Your task to perform on an android device: turn off notifications settings in the gmail app Image 0: 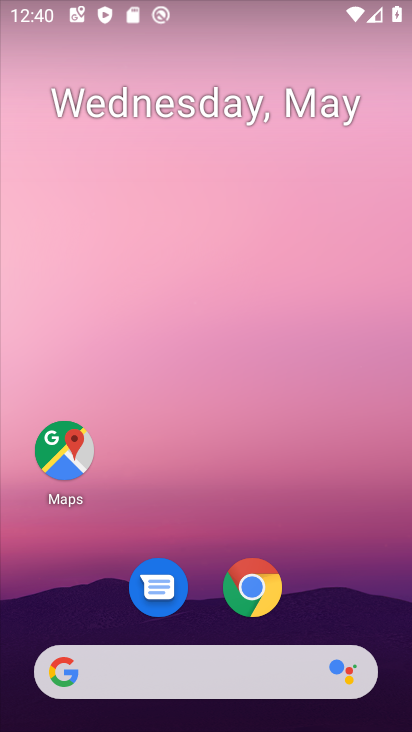
Step 0: drag from (367, 614) to (374, 160)
Your task to perform on an android device: turn off notifications settings in the gmail app Image 1: 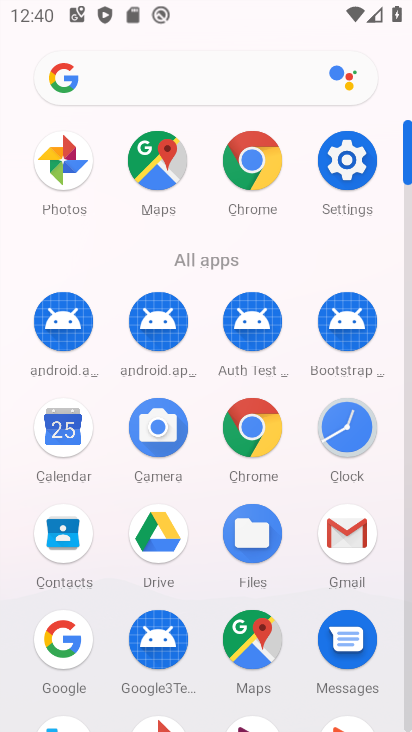
Step 1: click (368, 541)
Your task to perform on an android device: turn off notifications settings in the gmail app Image 2: 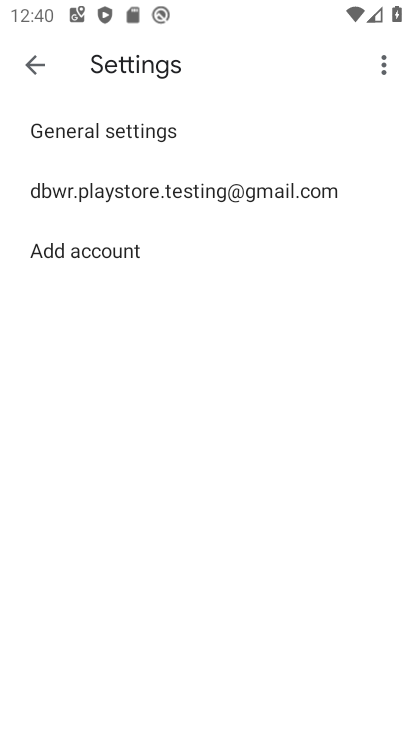
Step 2: click (261, 199)
Your task to perform on an android device: turn off notifications settings in the gmail app Image 3: 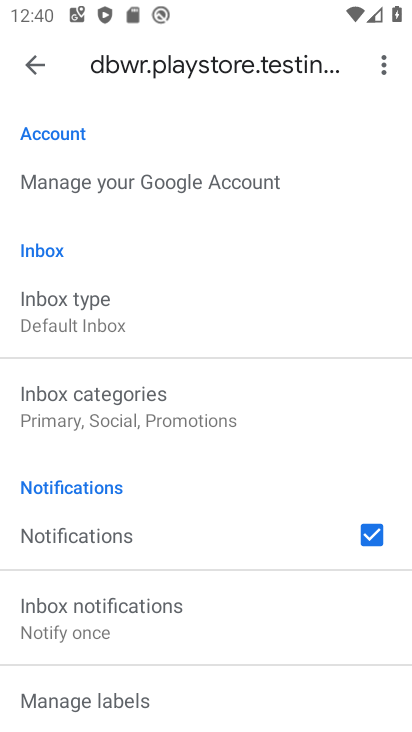
Step 3: drag from (273, 543) to (300, 399)
Your task to perform on an android device: turn off notifications settings in the gmail app Image 4: 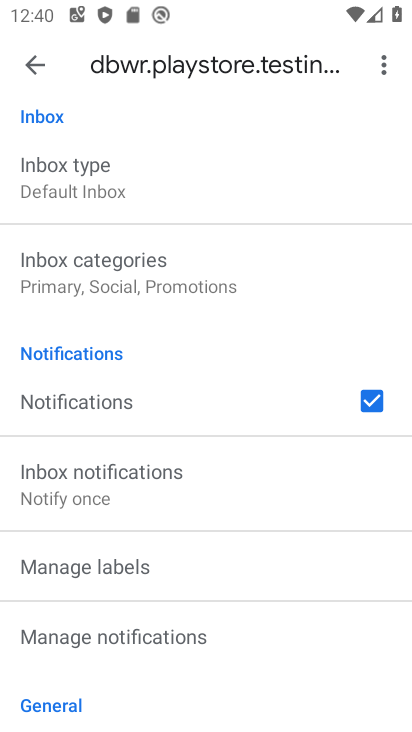
Step 4: drag from (255, 603) to (291, 459)
Your task to perform on an android device: turn off notifications settings in the gmail app Image 5: 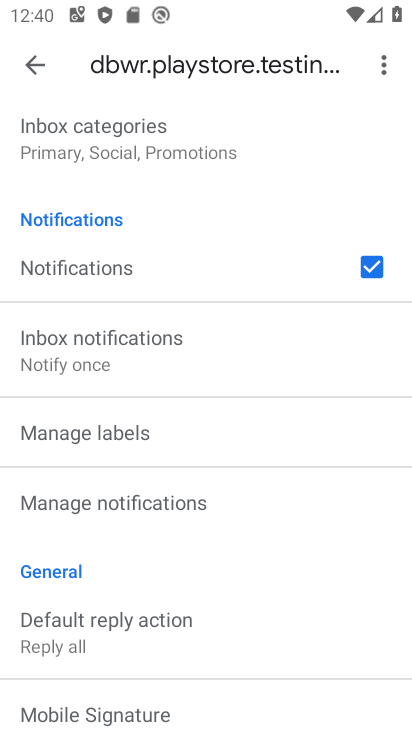
Step 5: drag from (298, 613) to (318, 453)
Your task to perform on an android device: turn off notifications settings in the gmail app Image 6: 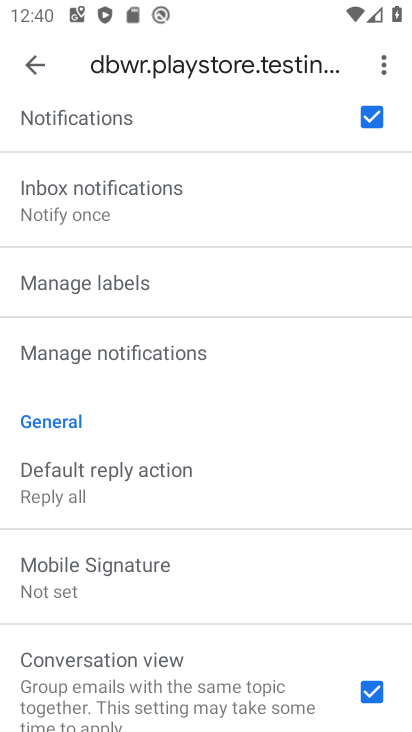
Step 6: drag from (319, 593) to (338, 422)
Your task to perform on an android device: turn off notifications settings in the gmail app Image 7: 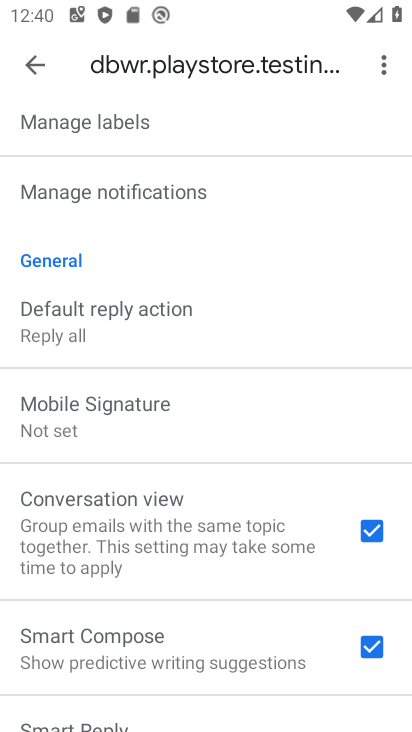
Step 7: drag from (319, 633) to (317, 500)
Your task to perform on an android device: turn off notifications settings in the gmail app Image 8: 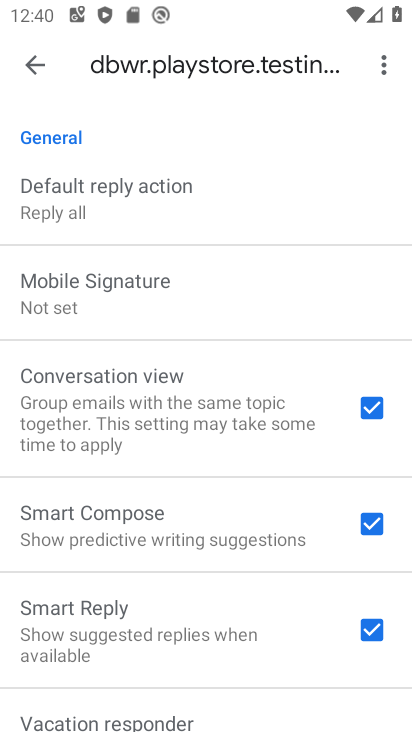
Step 8: drag from (323, 377) to (308, 465)
Your task to perform on an android device: turn off notifications settings in the gmail app Image 9: 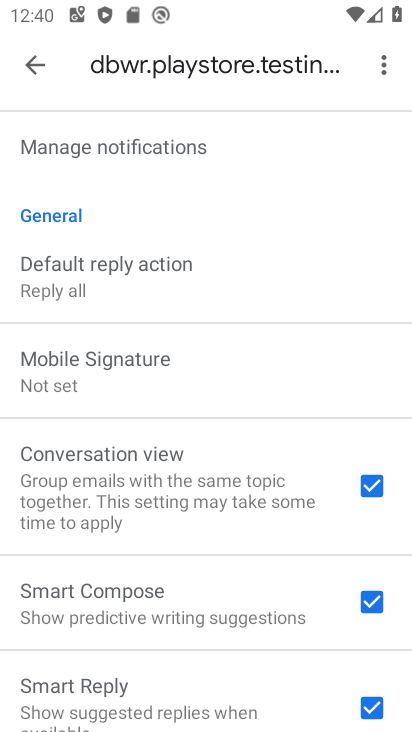
Step 9: drag from (280, 328) to (271, 440)
Your task to perform on an android device: turn off notifications settings in the gmail app Image 10: 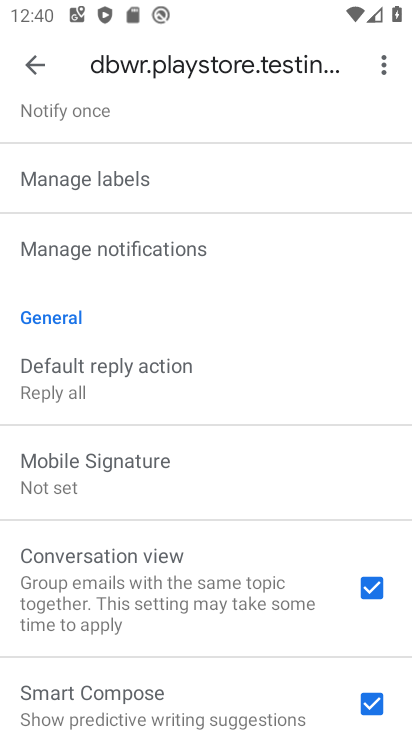
Step 10: drag from (290, 330) to (297, 456)
Your task to perform on an android device: turn off notifications settings in the gmail app Image 11: 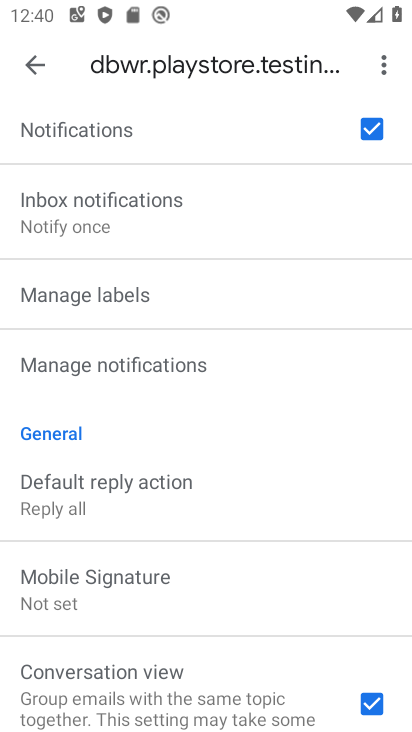
Step 11: click (182, 376)
Your task to perform on an android device: turn off notifications settings in the gmail app Image 12: 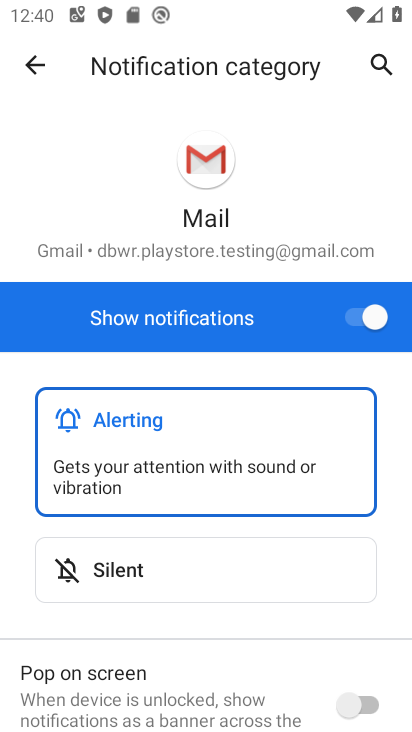
Step 12: click (363, 314)
Your task to perform on an android device: turn off notifications settings in the gmail app Image 13: 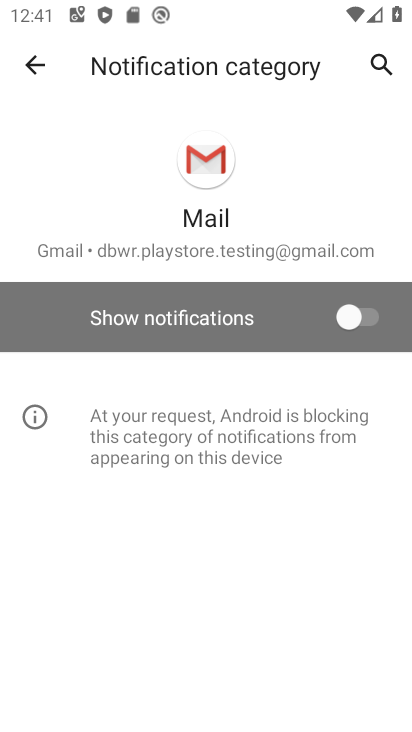
Step 13: task complete